Your task to perform on an android device: check battery use Image 0: 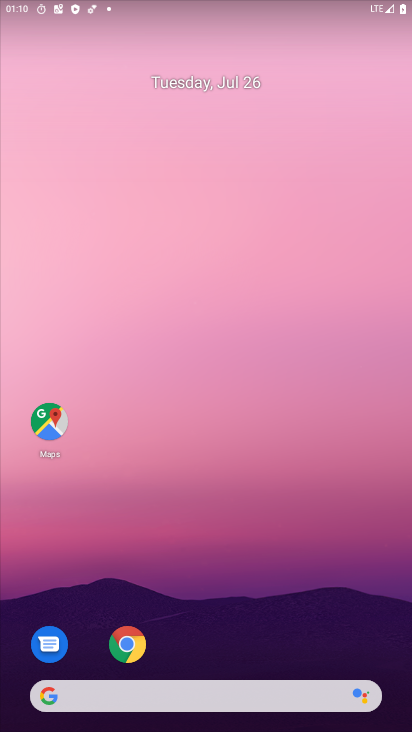
Step 0: drag from (258, 674) to (314, 20)
Your task to perform on an android device: check battery use Image 1: 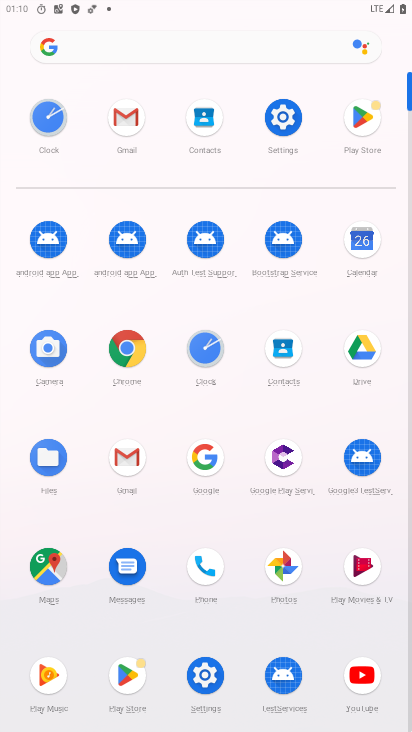
Step 1: click (290, 120)
Your task to perform on an android device: check battery use Image 2: 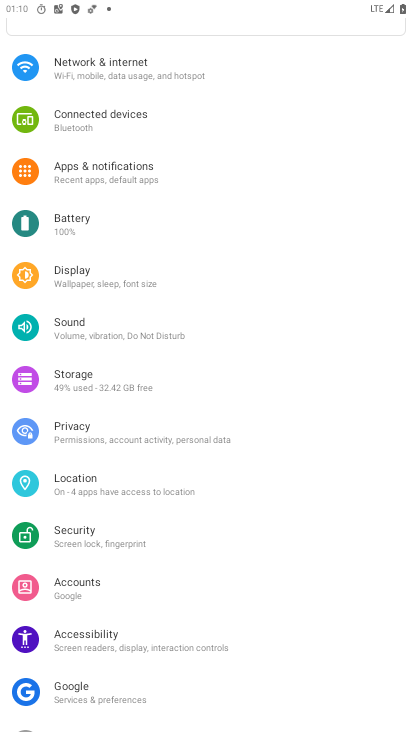
Step 2: click (87, 235)
Your task to perform on an android device: check battery use Image 3: 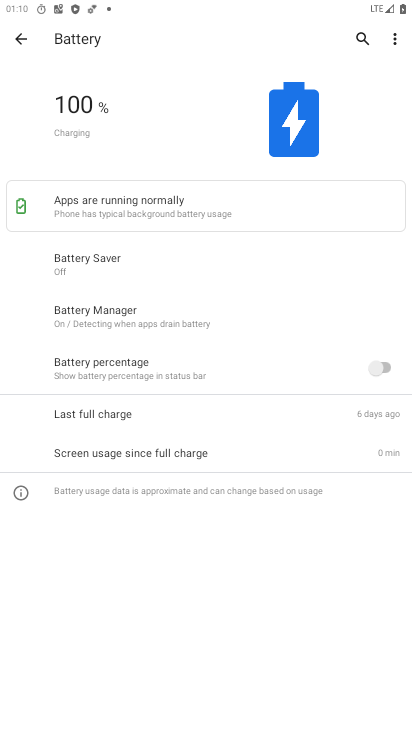
Step 3: click (393, 40)
Your task to perform on an android device: check battery use Image 4: 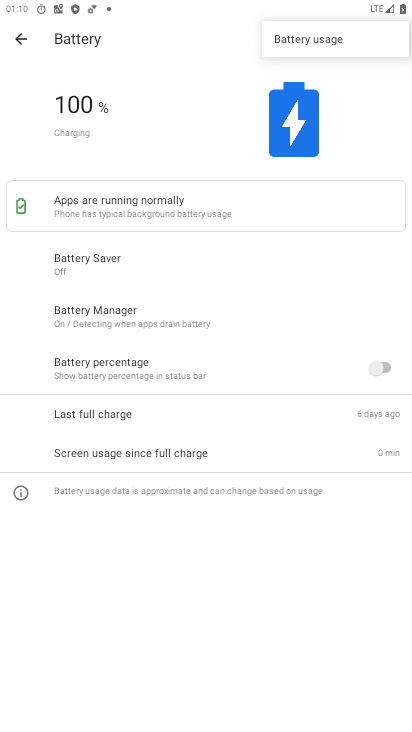
Step 4: click (313, 40)
Your task to perform on an android device: check battery use Image 5: 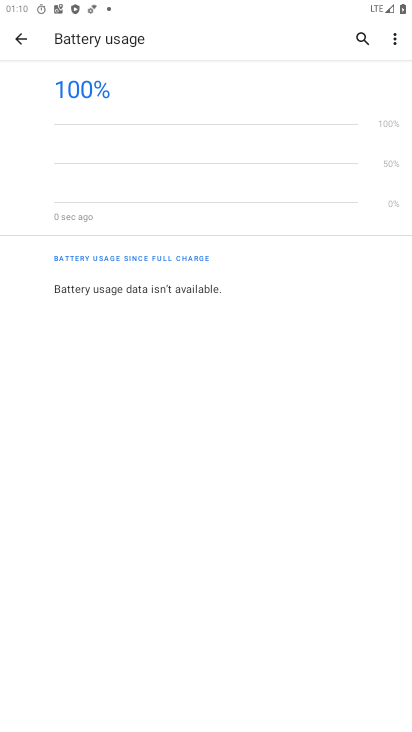
Step 5: task complete